Your task to perform on an android device: turn smart compose on in the gmail app Image 0: 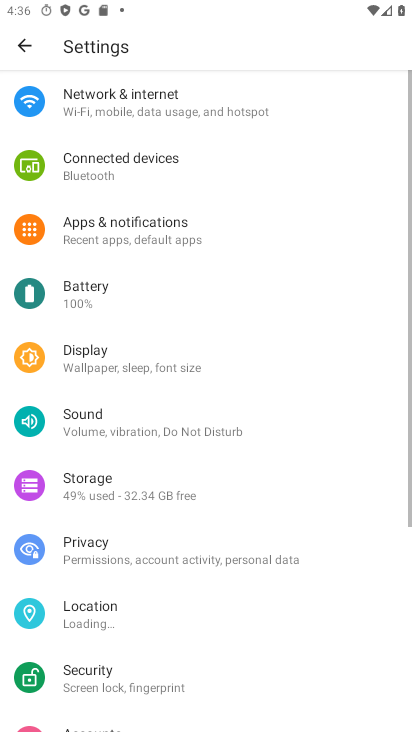
Step 0: press home button
Your task to perform on an android device: turn smart compose on in the gmail app Image 1: 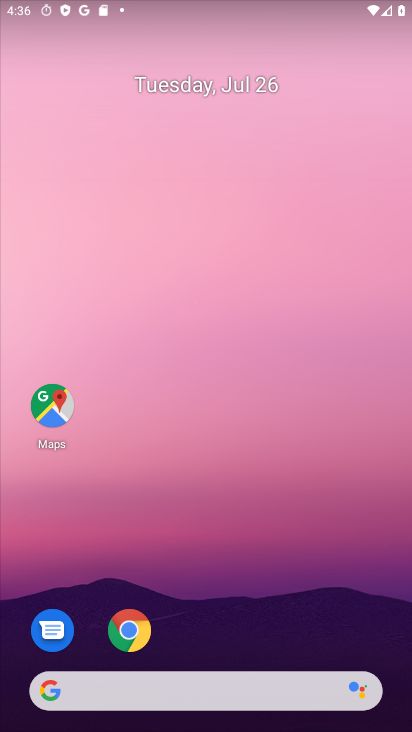
Step 1: drag from (342, 618) to (181, 87)
Your task to perform on an android device: turn smart compose on in the gmail app Image 2: 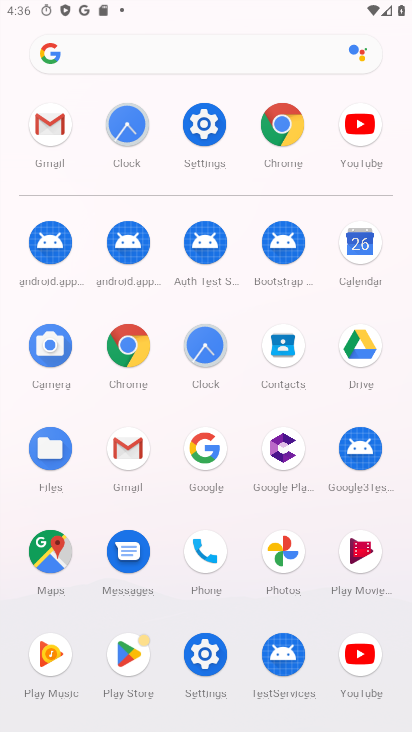
Step 2: click (56, 134)
Your task to perform on an android device: turn smart compose on in the gmail app Image 3: 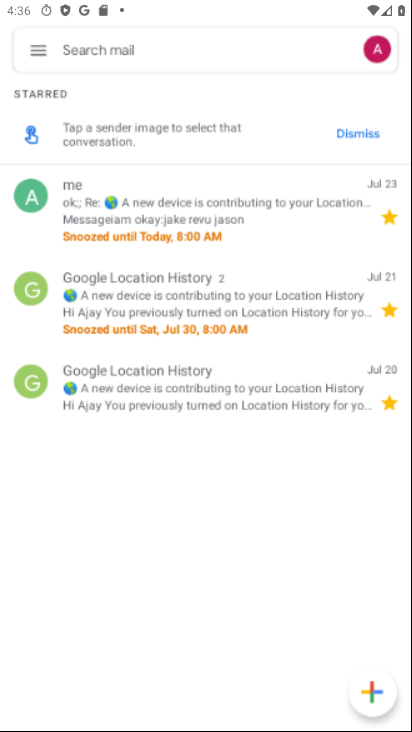
Step 3: click (33, 42)
Your task to perform on an android device: turn smart compose on in the gmail app Image 4: 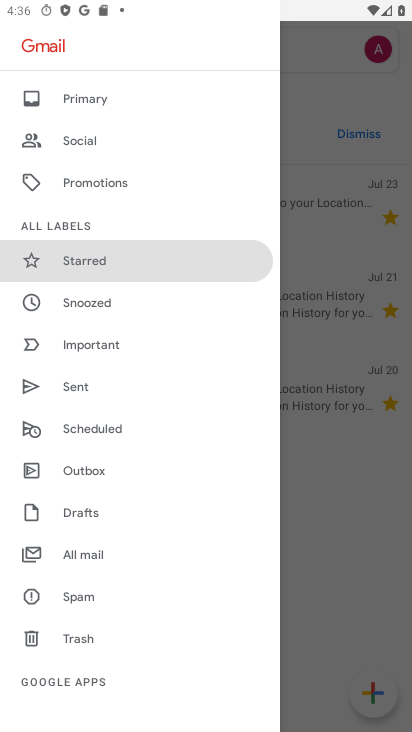
Step 4: drag from (141, 635) to (181, 312)
Your task to perform on an android device: turn smart compose on in the gmail app Image 5: 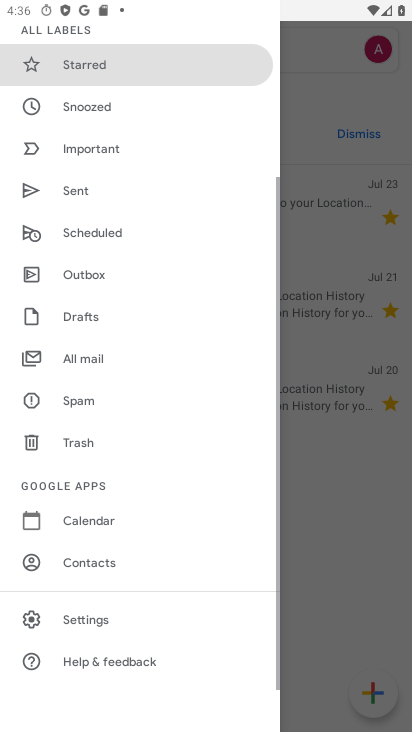
Step 5: click (104, 624)
Your task to perform on an android device: turn smart compose on in the gmail app Image 6: 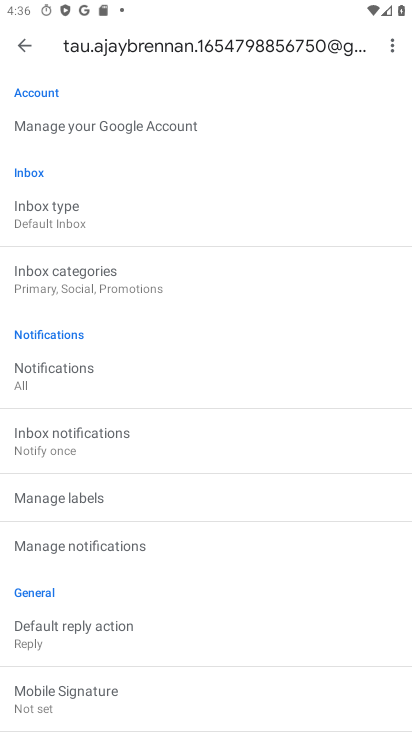
Step 6: drag from (210, 583) to (265, 275)
Your task to perform on an android device: turn smart compose on in the gmail app Image 7: 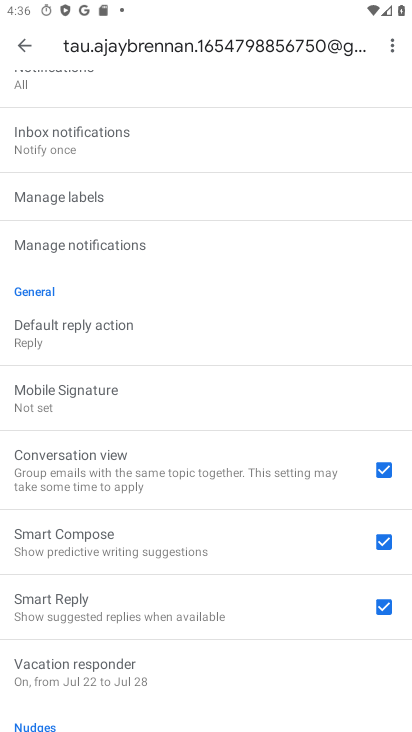
Step 7: click (385, 538)
Your task to perform on an android device: turn smart compose on in the gmail app Image 8: 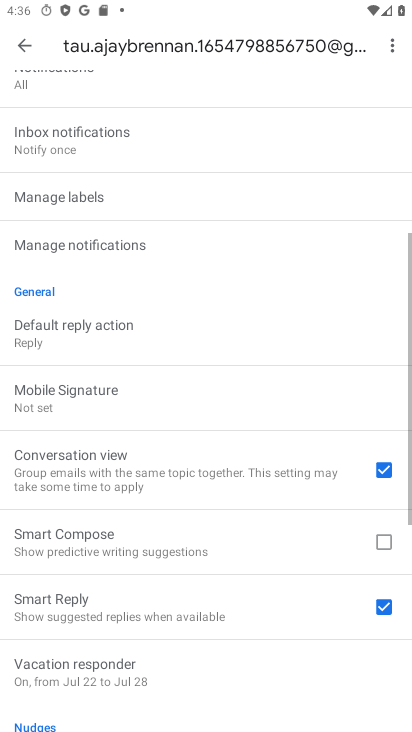
Step 8: task complete